Your task to perform on an android device: Open Reddit.com Image 0: 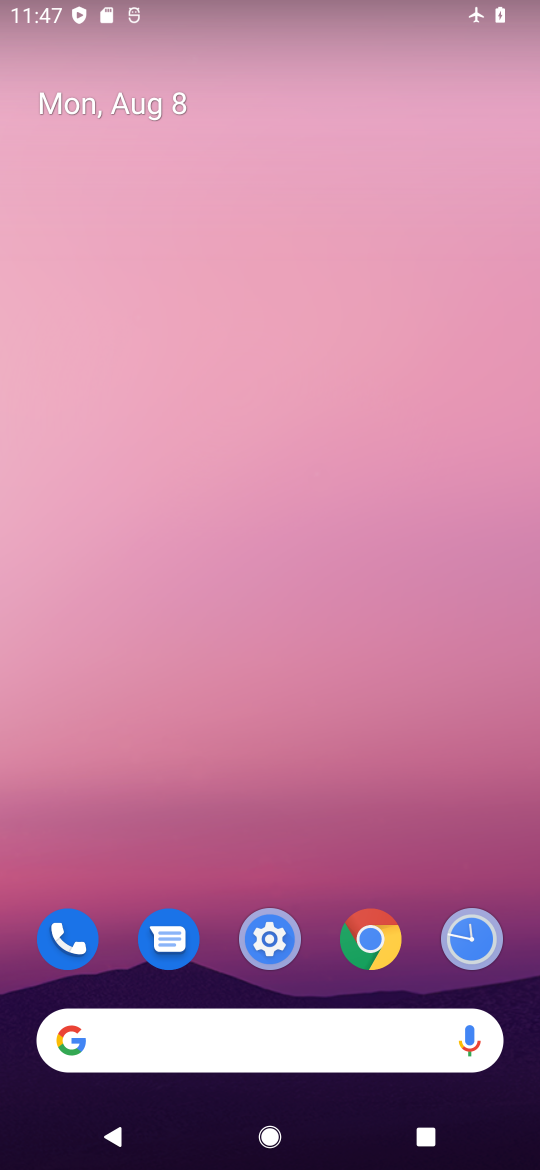
Step 0: click (374, 938)
Your task to perform on an android device: Open Reddit.com Image 1: 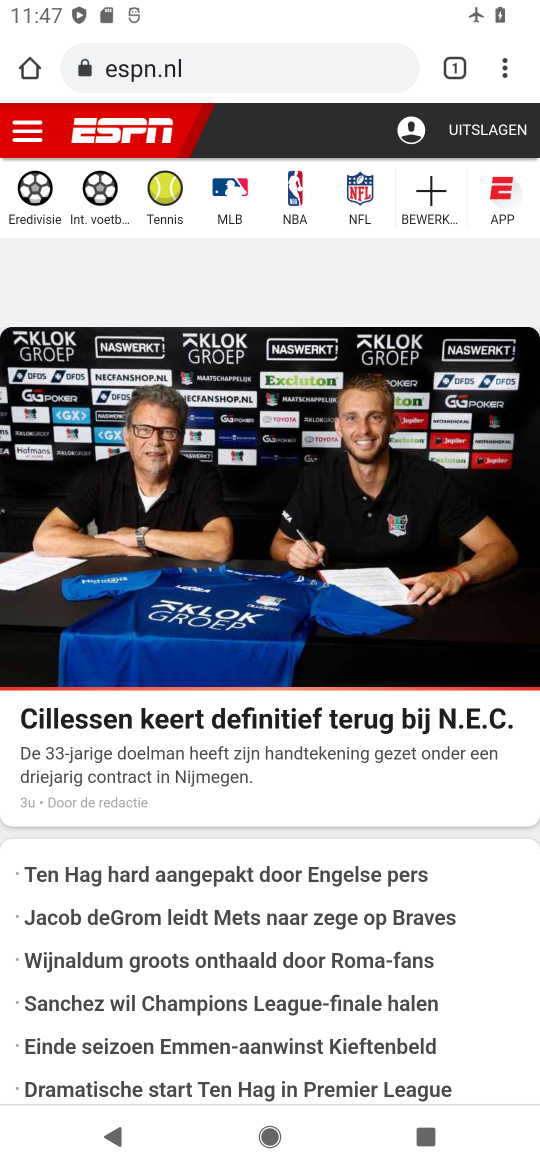
Step 1: click (250, 72)
Your task to perform on an android device: Open Reddit.com Image 2: 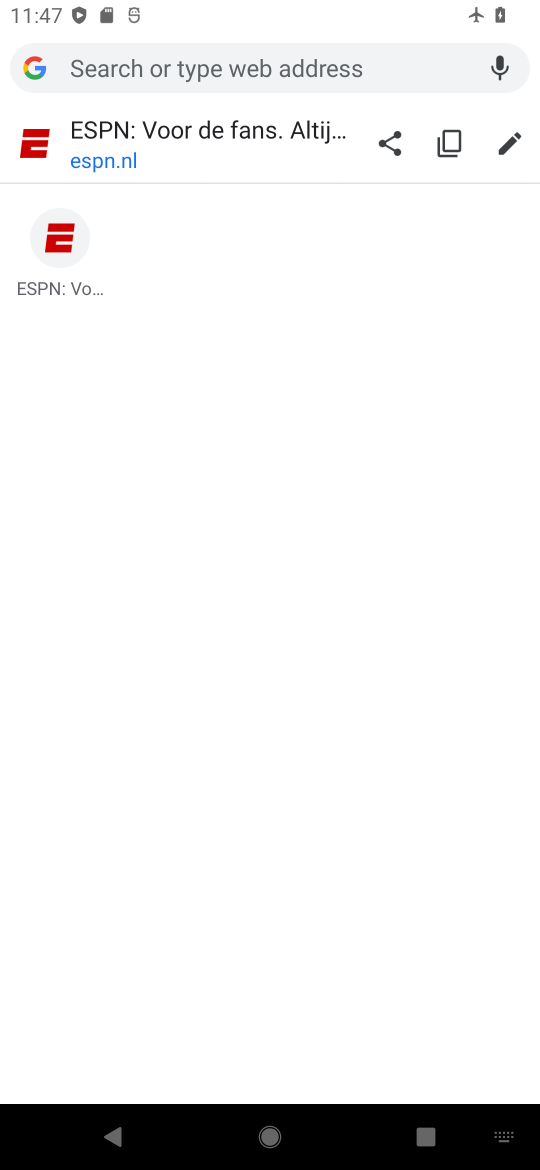
Step 2: type "Reddit.com"
Your task to perform on an android device: Open Reddit.com Image 3: 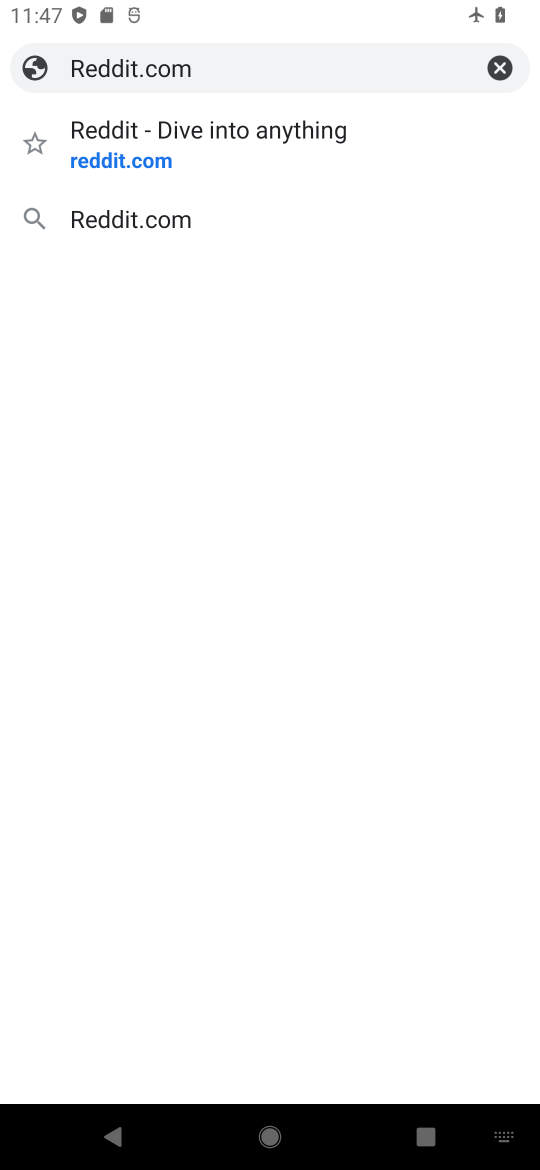
Step 3: click (158, 228)
Your task to perform on an android device: Open Reddit.com Image 4: 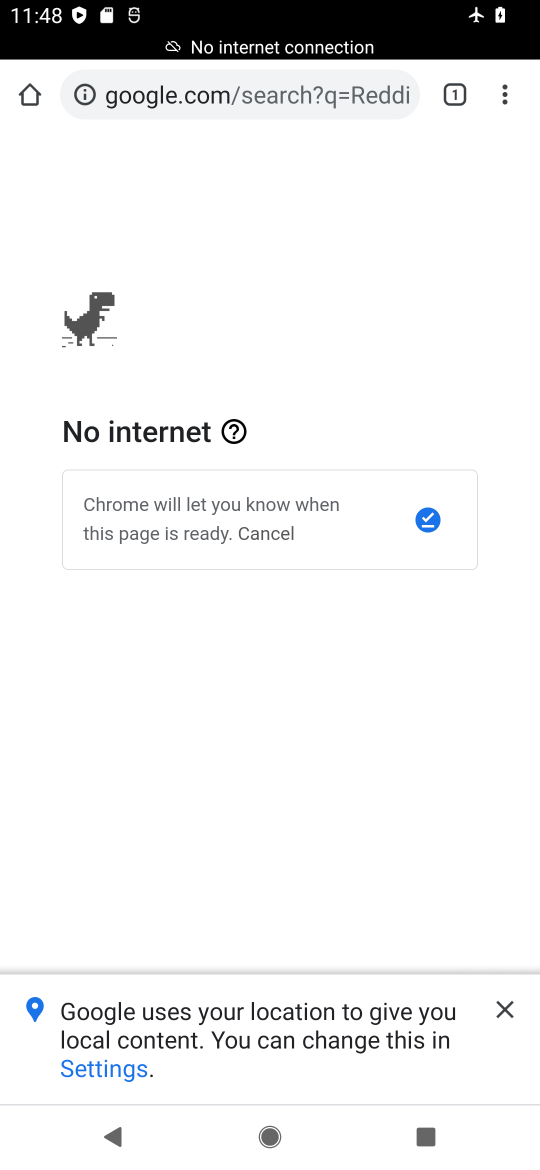
Step 4: task complete